Your task to perform on an android device: Open Google Chrome and open the bookmarks view Image 0: 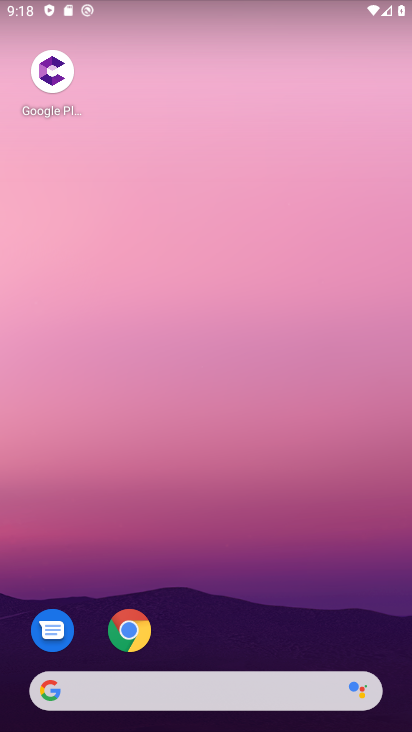
Step 0: click (136, 633)
Your task to perform on an android device: Open Google Chrome and open the bookmarks view Image 1: 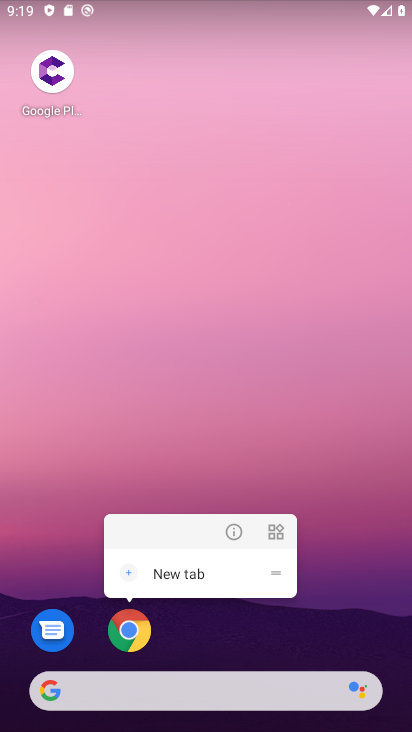
Step 1: click (133, 635)
Your task to perform on an android device: Open Google Chrome and open the bookmarks view Image 2: 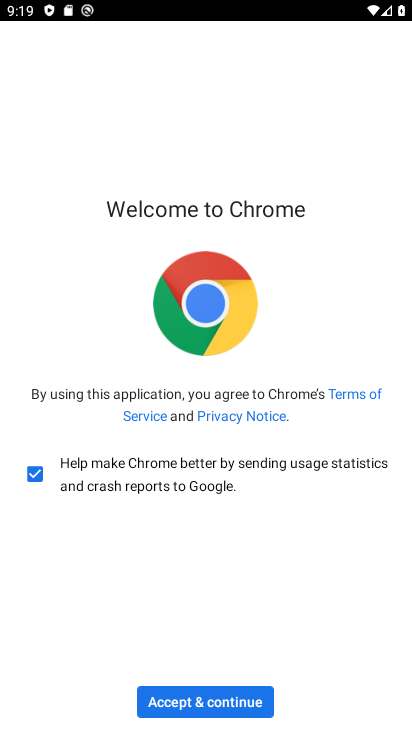
Step 2: click (147, 706)
Your task to perform on an android device: Open Google Chrome and open the bookmarks view Image 3: 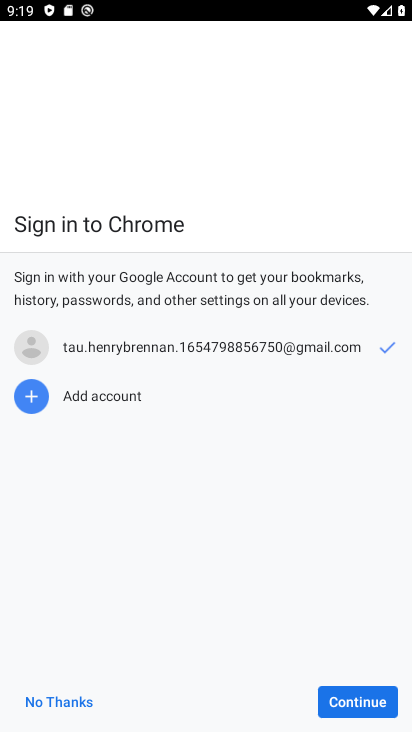
Step 3: click (332, 713)
Your task to perform on an android device: Open Google Chrome and open the bookmarks view Image 4: 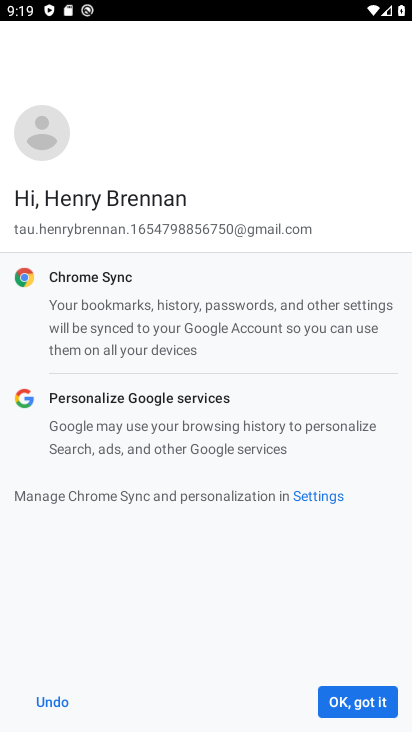
Step 4: click (347, 700)
Your task to perform on an android device: Open Google Chrome and open the bookmarks view Image 5: 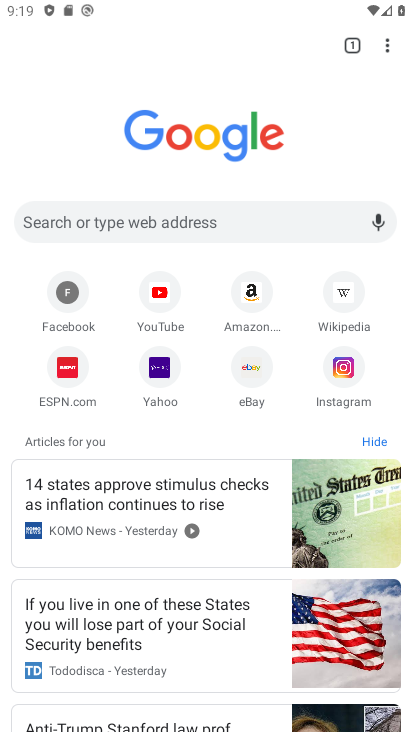
Step 5: task complete